Your task to perform on an android device: toggle priority inbox in the gmail app Image 0: 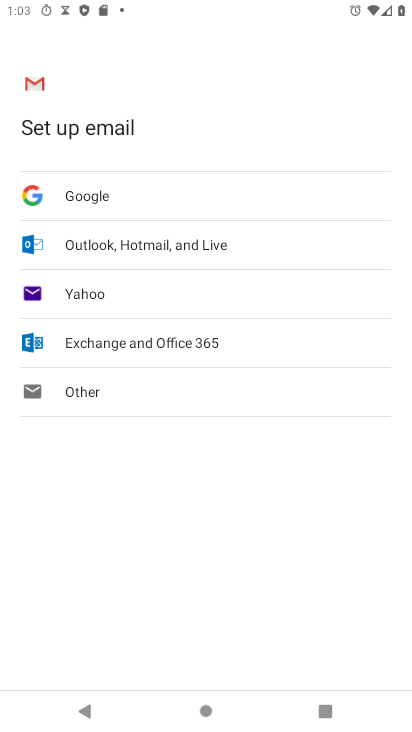
Step 0: press home button
Your task to perform on an android device: toggle priority inbox in the gmail app Image 1: 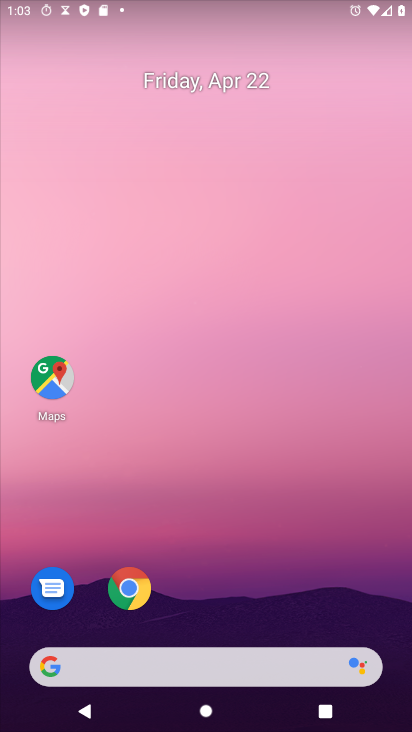
Step 1: drag from (249, 683) to (303, 169)
Your task to perform on an android device: toggle priority inbox in the gmail app Image 2: 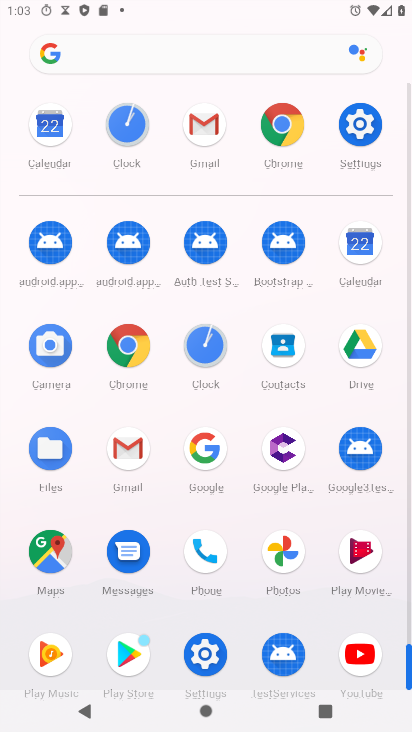
Step 2: click (193, 126)
Your task to perform on an android device: toggle priority inbox in the gmail app Image 3: 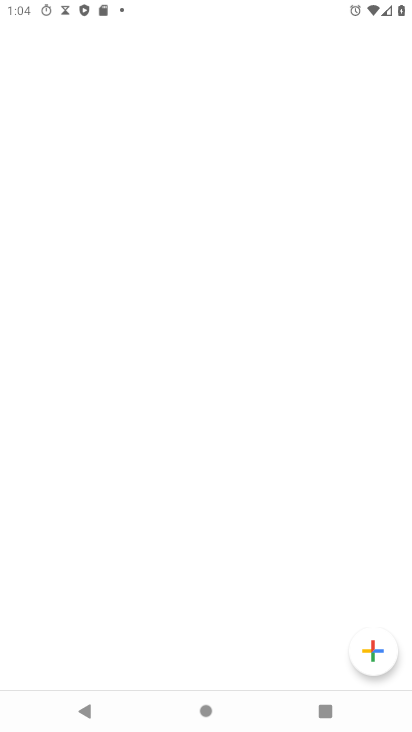
Step 3: drag from (157, 152) to (110, 196)
Your task to perform on an android device: toggle priority inbox in the gmail app Image 4: 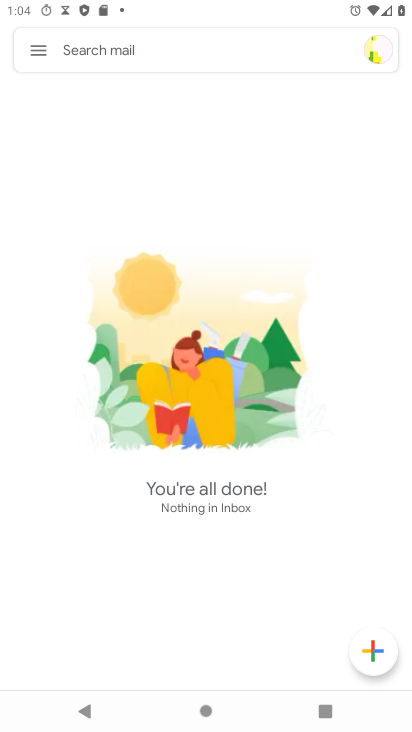
Step 4: click (40, 58)
Your task to perform on an android device: toggle priority inbox in the gmail app Image 5: 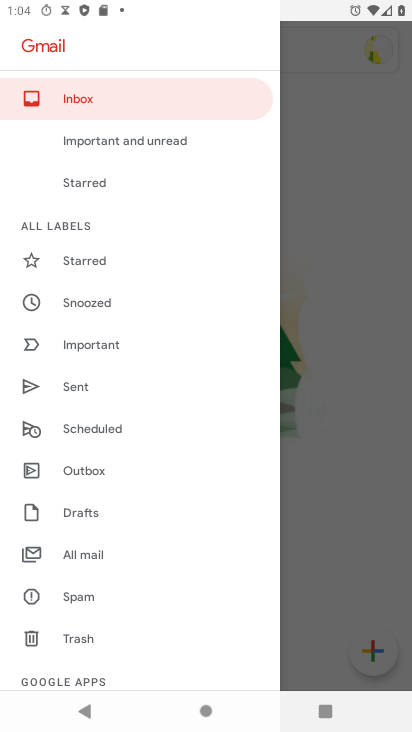
Step 5: drag from (96, 581) to (154, 426)
Your task to perform on an android device: toggle priority inbox in the gmail app Image 6: 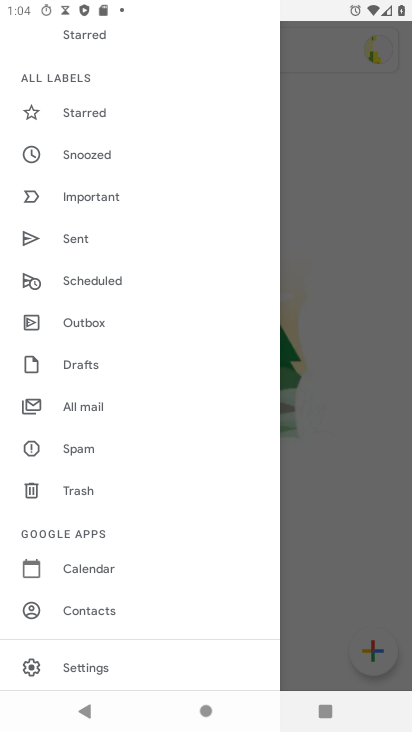
Step 6: click (54, 675)
Your task to perform on an android device: toggle priority inbox in the gmail app Image 7: 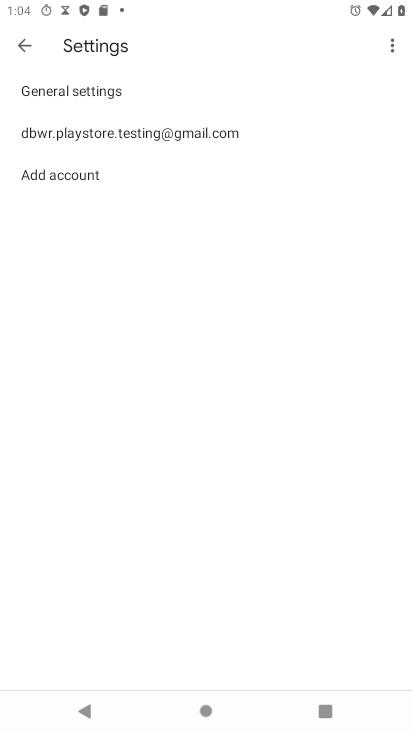
Step 7: click (124, 129)
Your task to perform on an android device: toggle priority inbox in the gmail app Image 8: 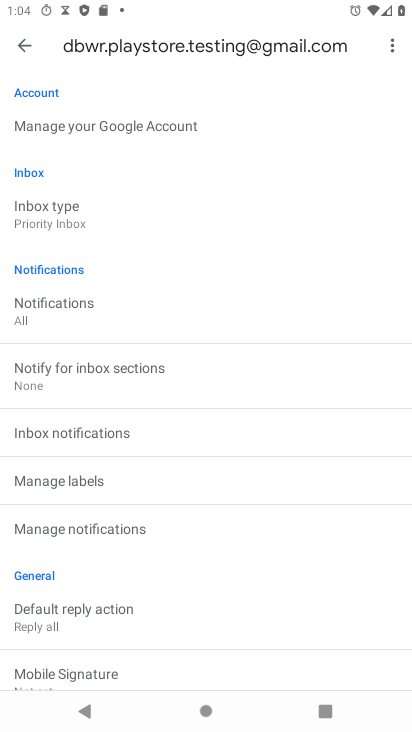
Step 8: click (77, 217)
Your task to perform on an android device: toggle priority inbox in the gmail app Image 9: 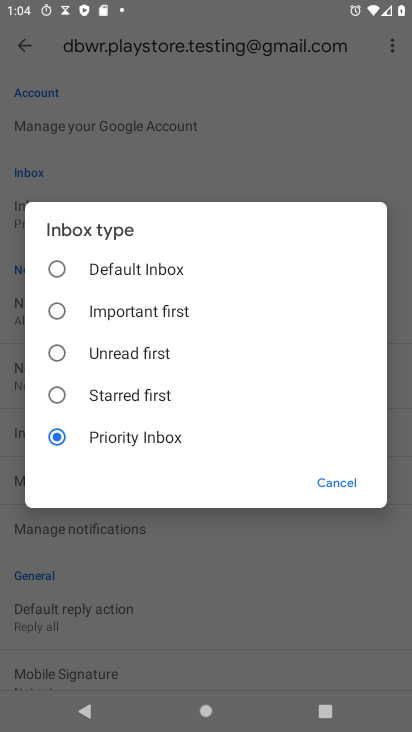
Step 9: task complete